Your task to perform on an android device: delete browsing data in the chrome app Image 0: 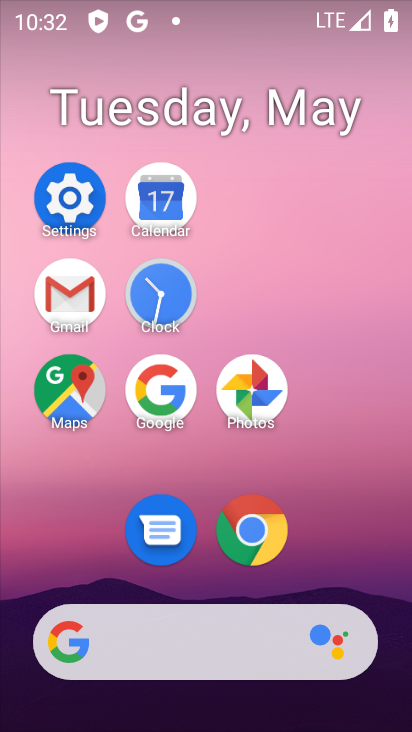
Step 0: click (261, 538)
Your task to perform on an android device: delete browsing data in the chrome app Image 1: 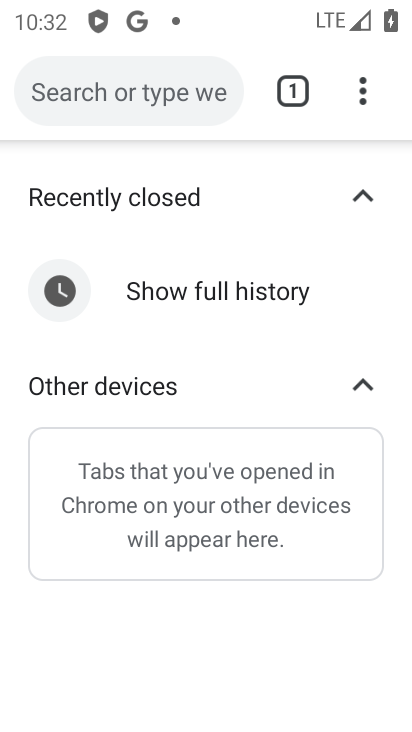
Step 1: click (376, 99)
Your task to perform on an android device: delete browsing data in the chrome app Image 2: 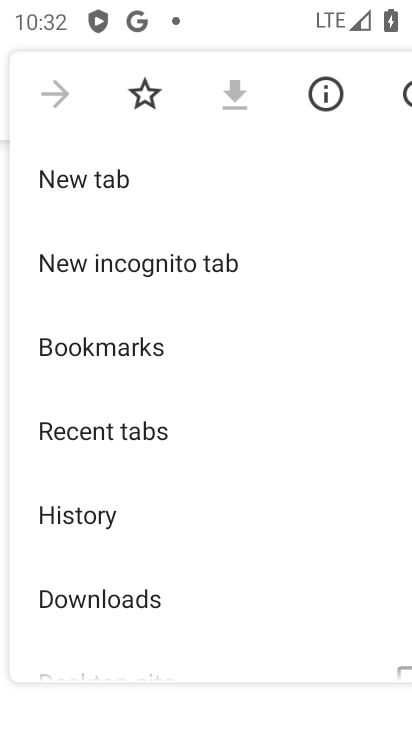
Step 2: drag from (239, 471) to (276, 115)
Your task to perform on an android device: delete browsing data in the chrome app Image 3: 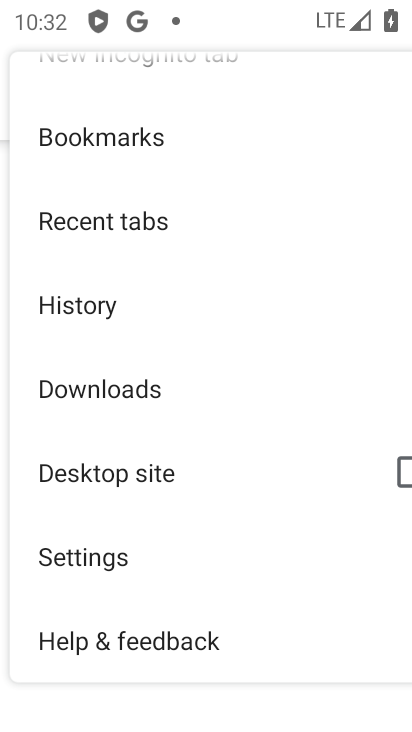
Step 3: click (145, 539)
Your task to perform on an android device: delete browsing data in the chrome app Image 4: 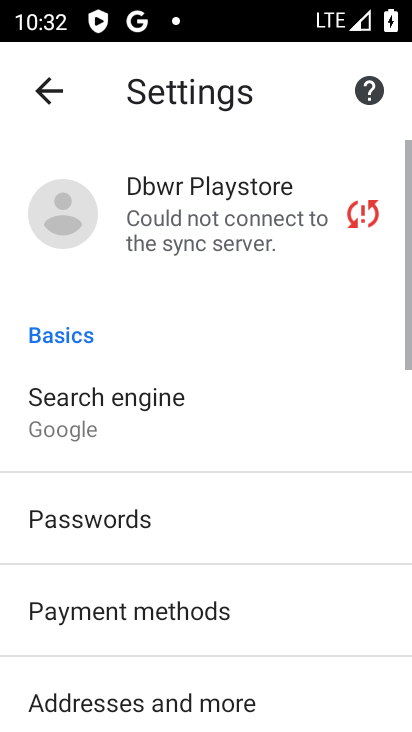
Step 4: drag from (144, 522) to (174, 199)
Your task to perform on an android device: delete browsing data in the chrome app Image 5: 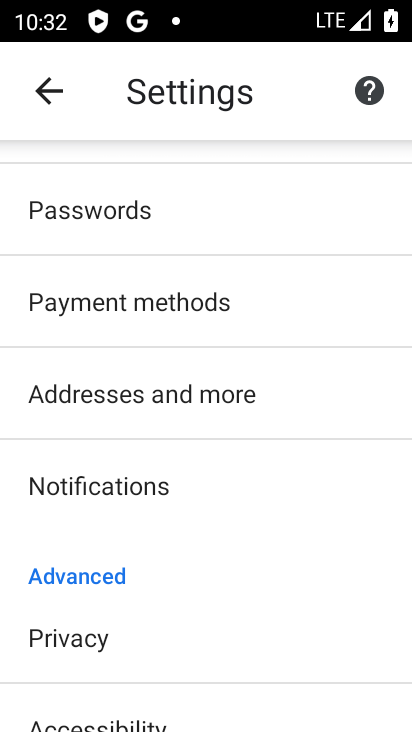
Step 5: drag from (121, 578) to (198, 208)
Your task to perform on an android device: delete browsing data in the chrome app Image 6: 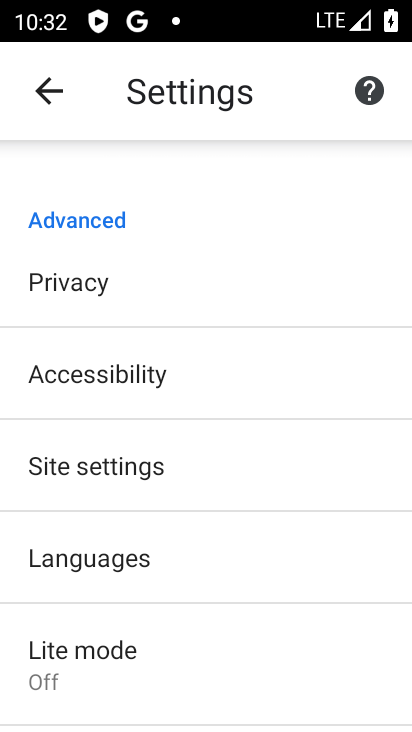
Step 6: drag from (160, 611) to (220, 288)
Your task to perform on an android device: delete browsing data in the chrome app Image 7: 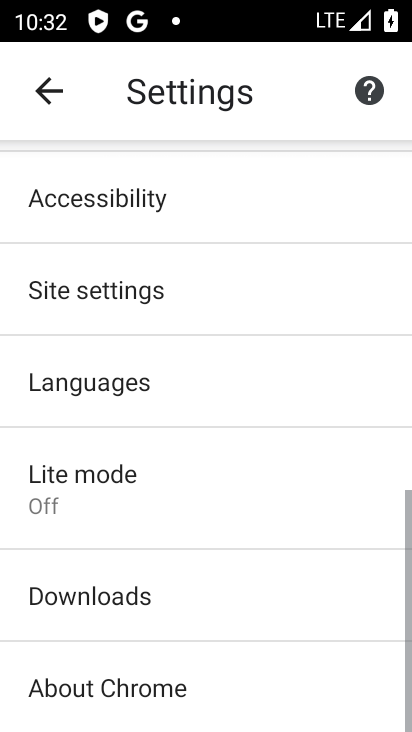
Step 7: drag from (156, 597) to (229, 200)
Your task to perform on an android device: delete browsing data in the chrome app Image 8: 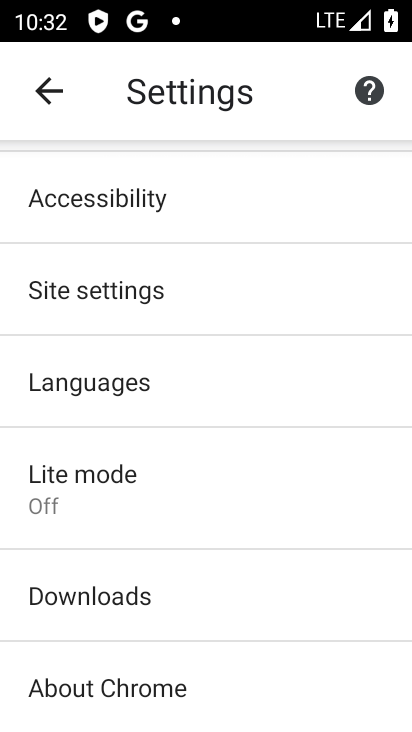
Step 8: drag from (223, 505) to (286, 142)
Your task to perform on an android device: delete browsing data in the chrome app Image 9: 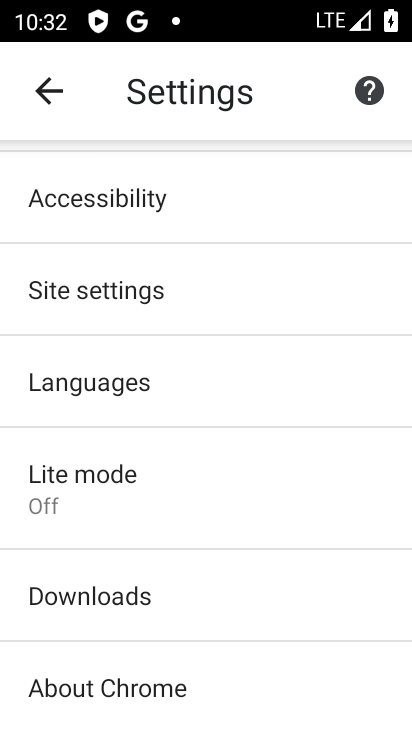
Step 9: drag from (284, 182) to (256, 525)
Your task to perform on an android device: delete browsing data in the chrome app Image 10: 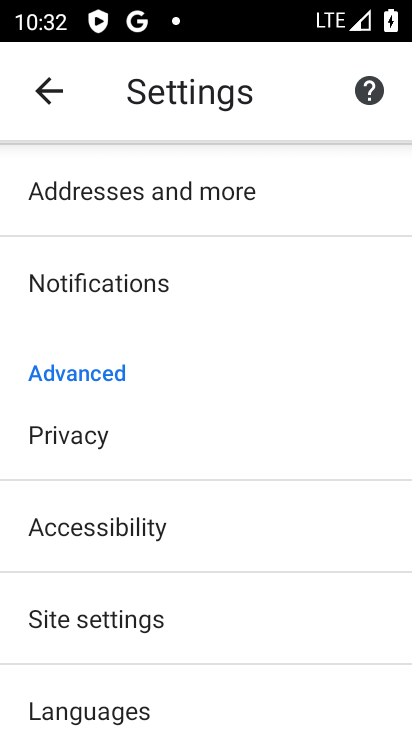
Step 10: click (189, 411)
Your task to perform on an android device: delete browsing data in the chrome app Image 11: 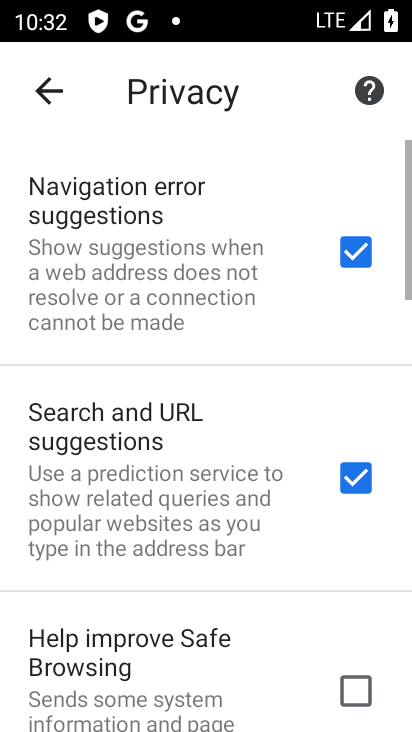
Step 11: drag from (231, 496) to (278, 76)
Your task to perform on an android device: delete browsing data in the chrome app Image 12: 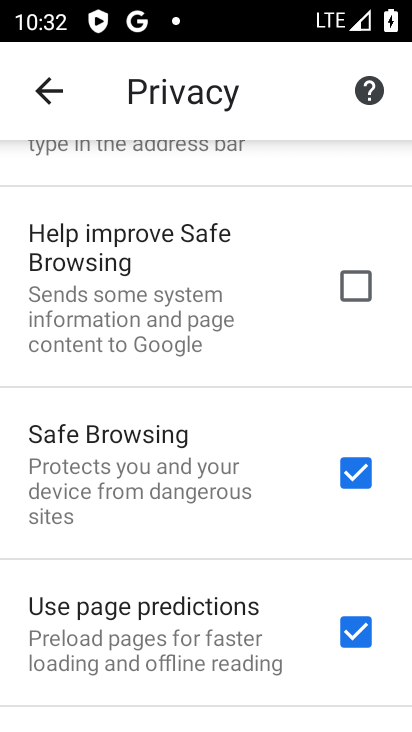
Step 12: drag from (227, 562) to (284, 124)
Your task to perform on an android device: delete browsing data in the chrome app Image 13: 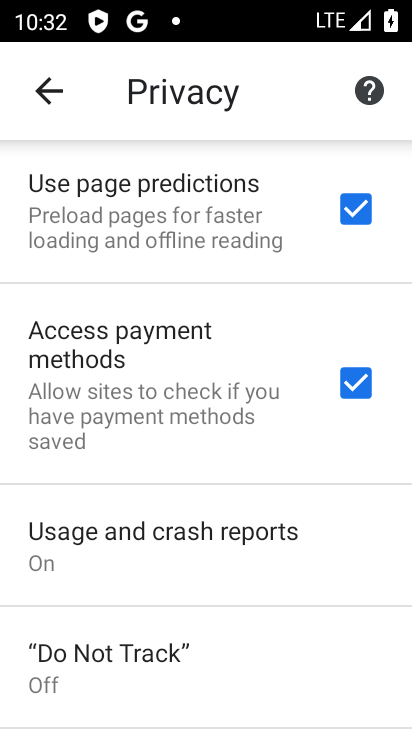
Step 13: drag from (242, 557) to (311, 135)
Your task to perform on an android device: delete browsing data in the chrome app Image 14: 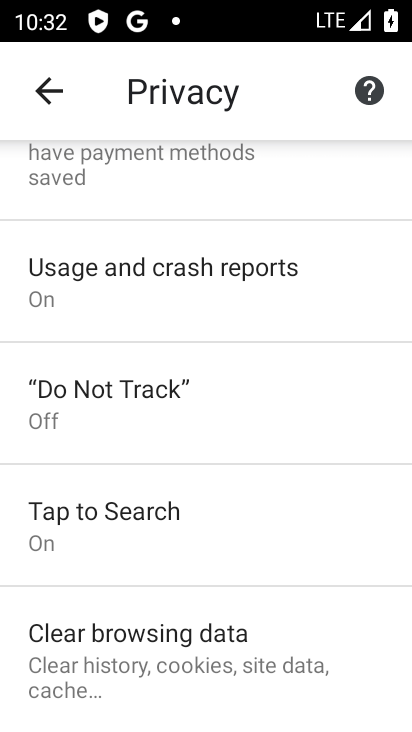
Step 14: click (242, 612)
Your task to perform on an android device: delete browsing data in the chrome app Image 15: 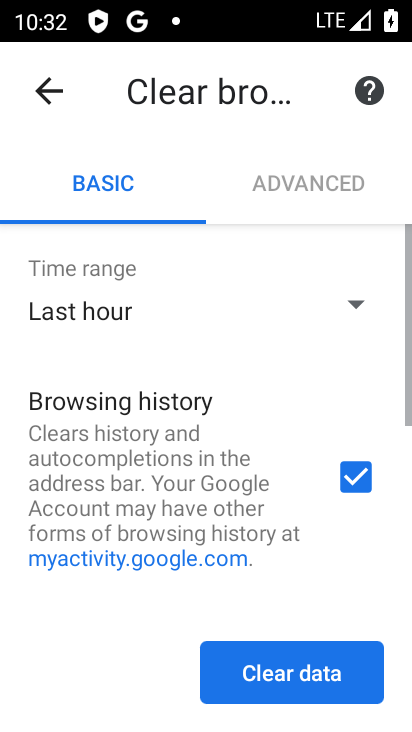
Step 15: drag from (235, 601) to (286, 226)
Your task to perform on an android device: delete browsing data in the chrome app Image 16: 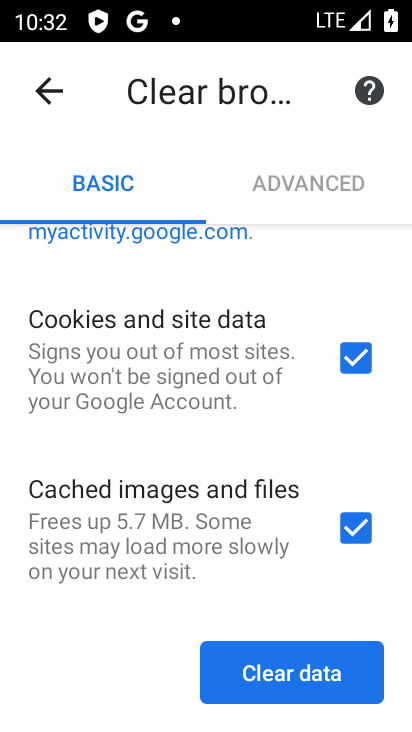
Step 16: click (288, 651)
Your task to perform on an android device: delete browsing data in the chrome app Image 17: 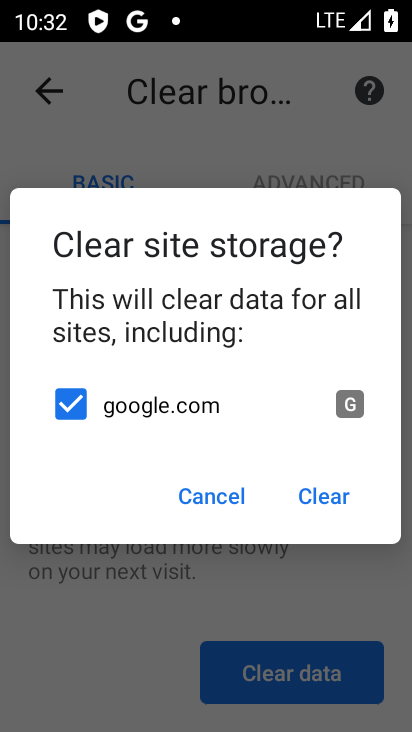
Step 17: click (349, 496)
Your task to perform on an android device: delete browsing data in the chrome app Image 18: 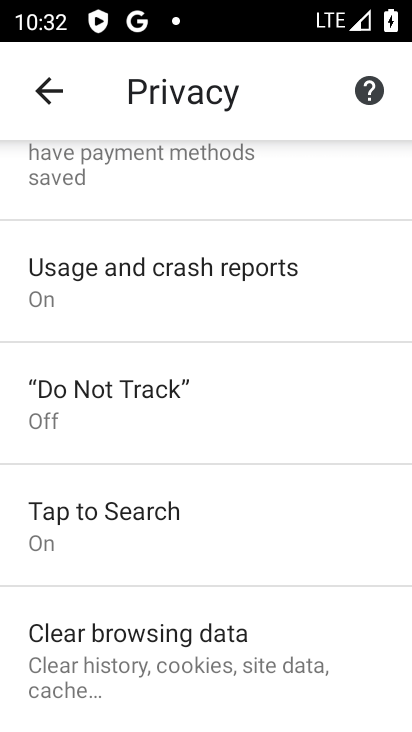
Step 18: task complete